Your task to perform on an android device: Go to internet settings Image 0: 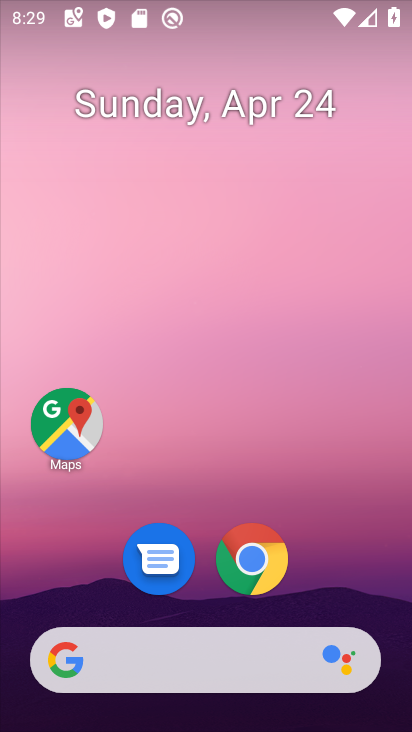
Step 0: drag from (337, 577) to (313, 207)
Your task to perform on an android device: Go to internet settings Image 1: 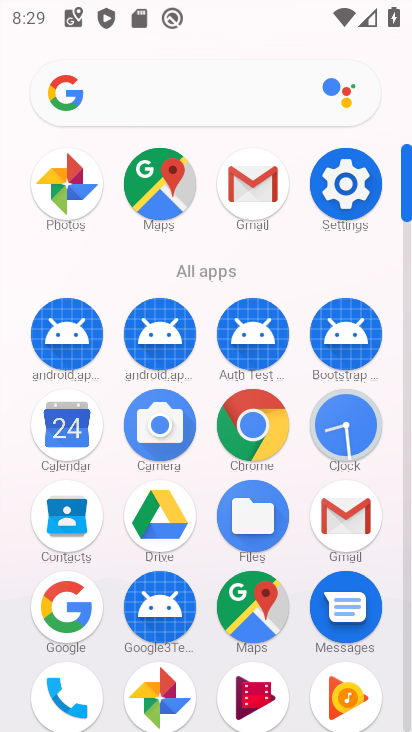
Step 1: click (347, 180)
Your task to perform on an android device: Go to internet settings Image 2: 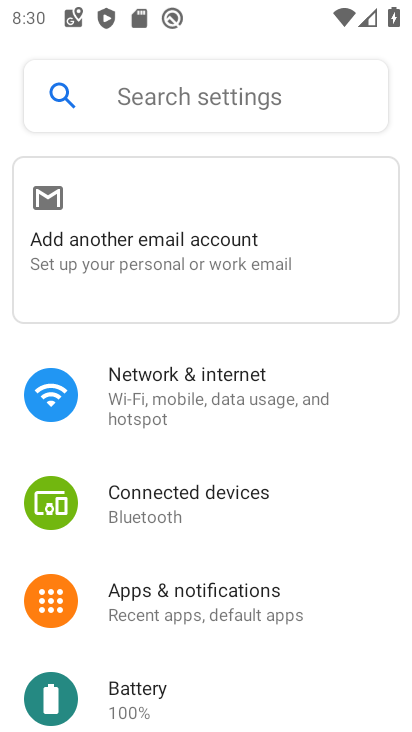
Step 2: click (226, 389)
Your task to perform on an android device: Go to internet settings Image 3: 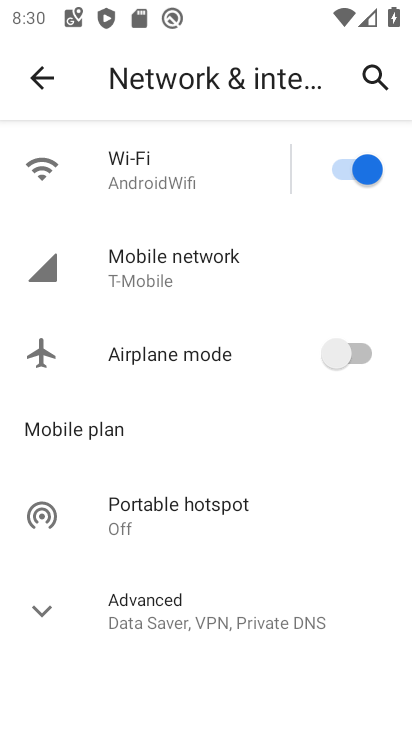
Step 3: task complete